Your task to perform on an android device: uninstall "Google Play Games" Image 0: 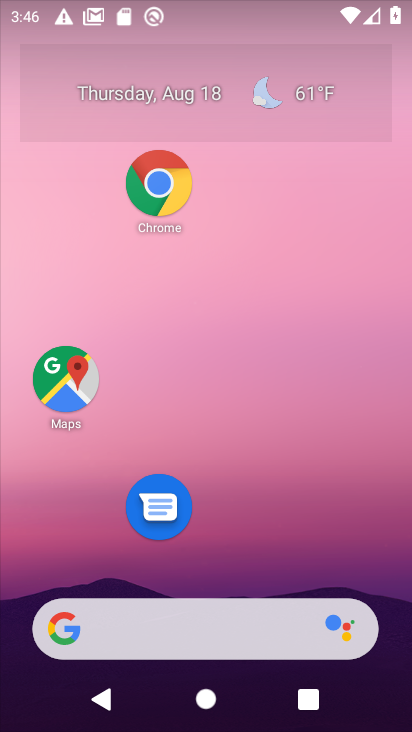
Step 0: drag from (280, 506) to (266, 31)
Your task to perform on an android device: uninstall "Google Play Games" Image 1: 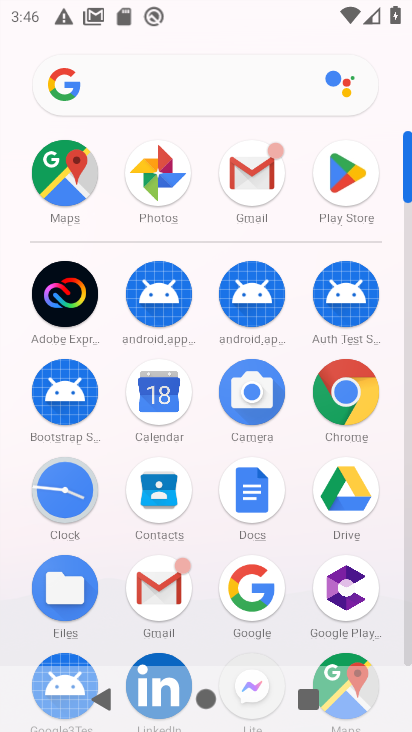
Step 1: click (349, 166)
Your task to perform on an android device: uninstall "Google Play Games" Image 2: 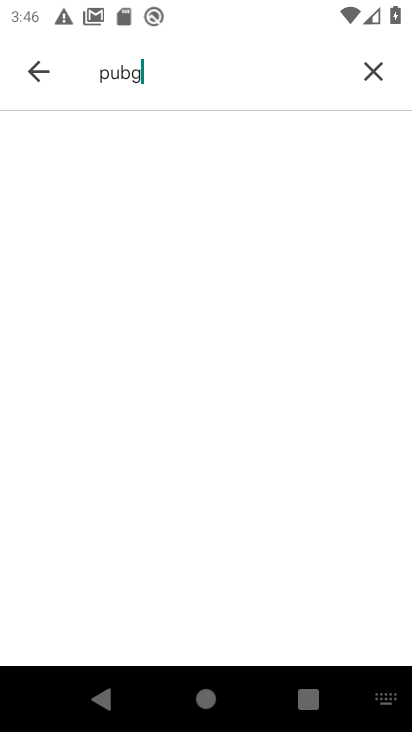
Step 2: click (370, 50)
Your task to perform on an android device: uninstall "Google Play Games" Image 3: 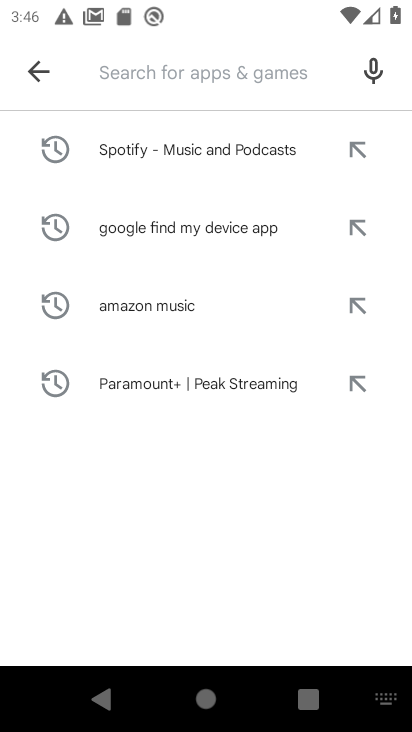
Step 3: click (193, 80)
Your task to perform on an android device: uninstall "Google Play Games" Image 4: 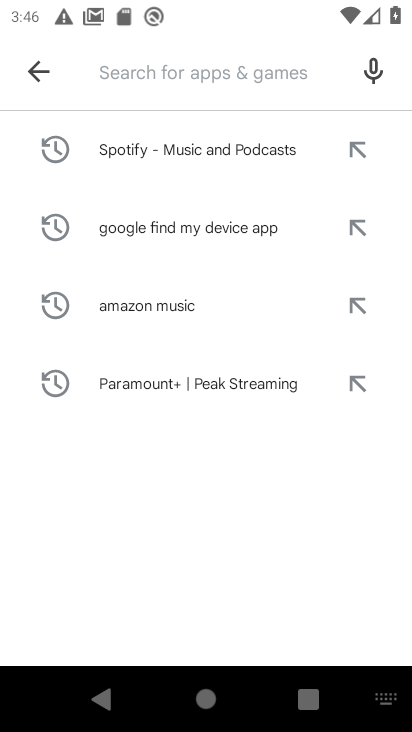
Step 4: type "Google Play Games"
Your task to perform on an android device: uninstall "Google Play Games" Image 5: 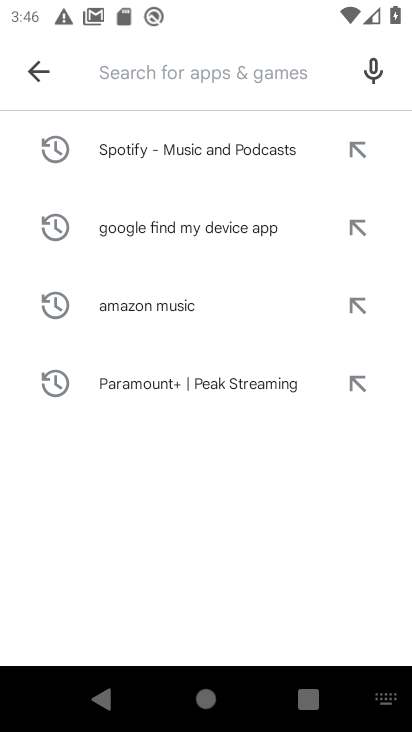
Step 5: click (240, 500)
Your task to perform on an android device: uninstall "Google Play Games" Image 6: 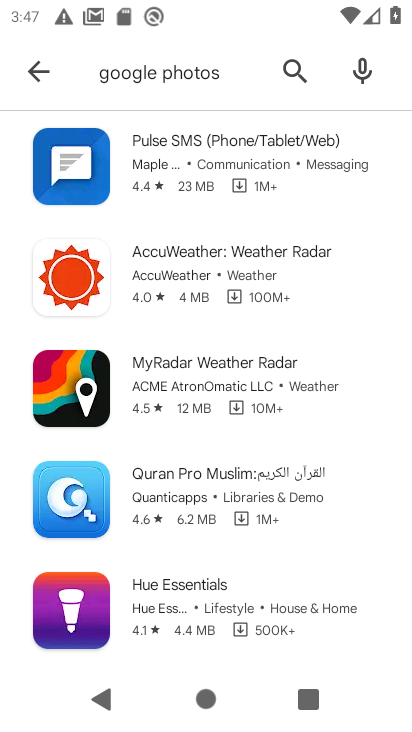
Step 6: click (301, 66)
Your task to perform on an android device: uninstall "Google Play Games" Image 7: 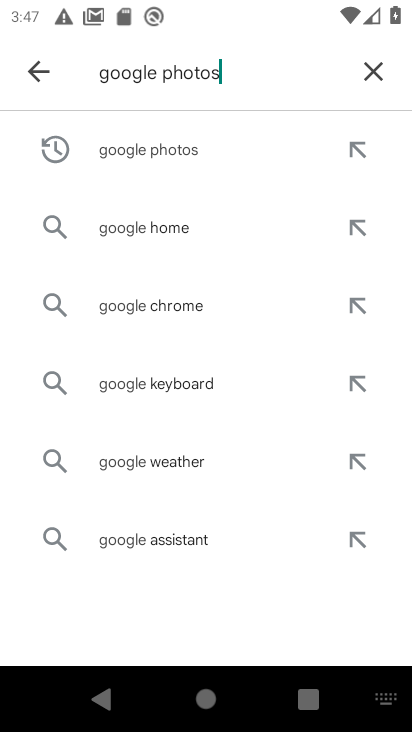
Step 7: click (373, 64)
Your task to perform on an android device: uninstall "Google Play Games" Image 8: 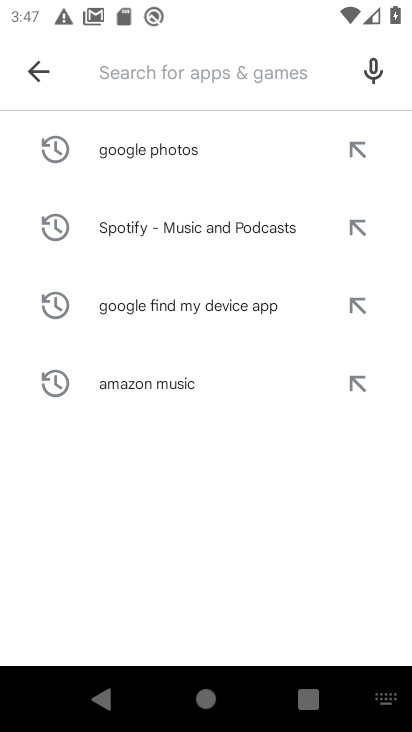
Step 8: click (141, 66)
Your task to perform on an android device: uninstall "Google Play Games" Image 9: 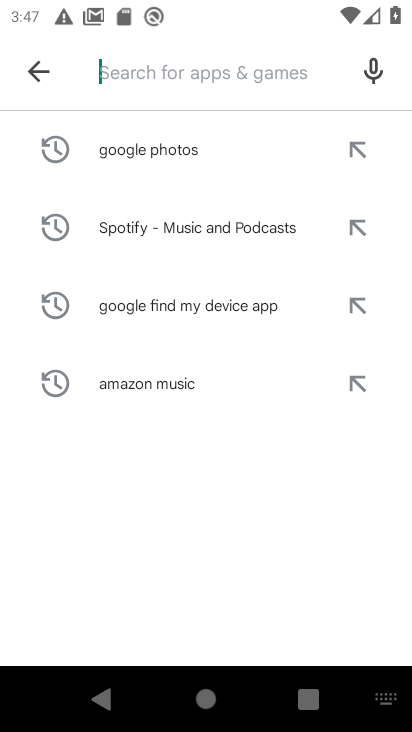
Step 9: type "Google Play Games"
Your task to perform on an android device: uninstall "Google Play Games" Image 10: 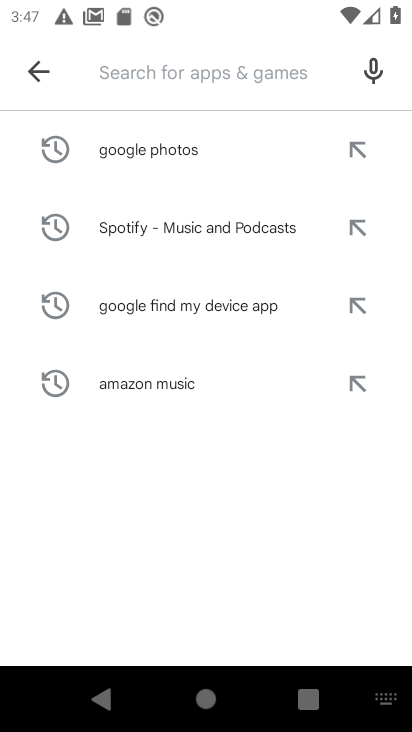
Step 10: click (170, 471)
Your task to perform on an android device: uninstall "Google Play Games" Image 11: 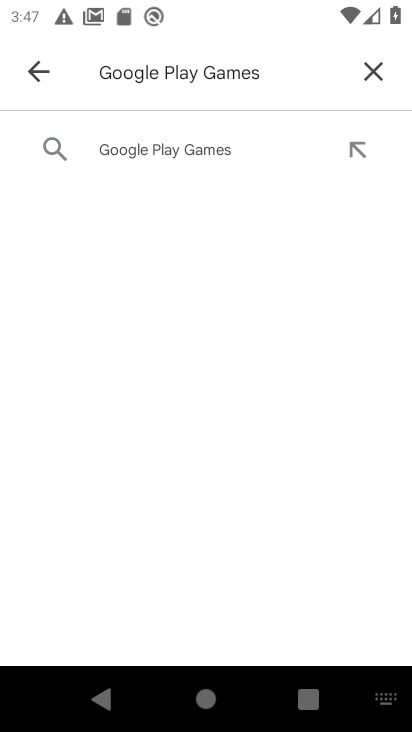
Step 11: click (147, 135)
Your task to perform on an android device: uninstall "Google Play Games" Image 12: 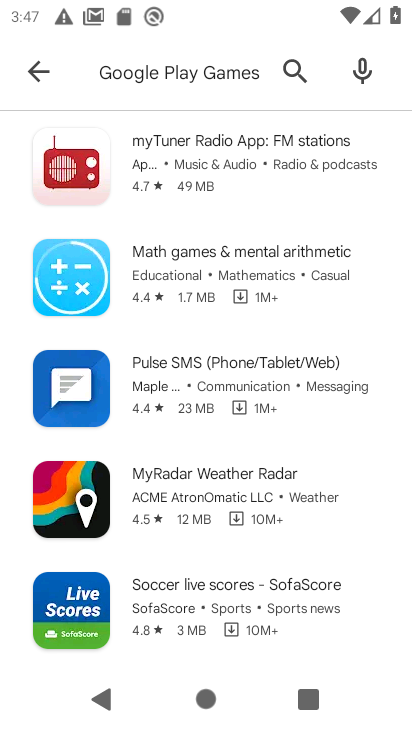
Step 12: task complete